Your task to perform on an android device: delete location history Image 0: 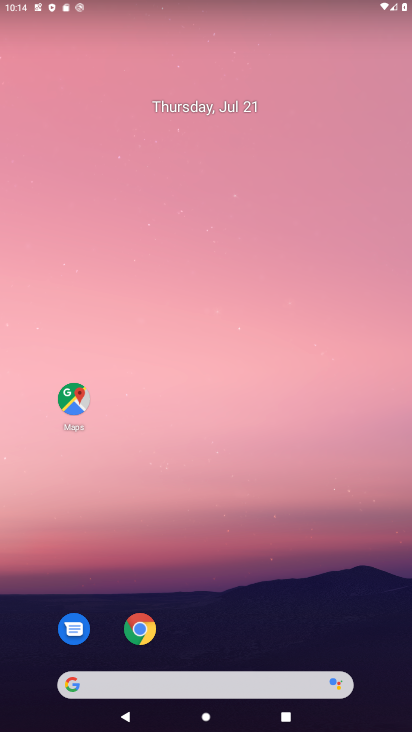
Step 0: click (70, 405)
Your task to perform on an android device: delete location history Image 1: 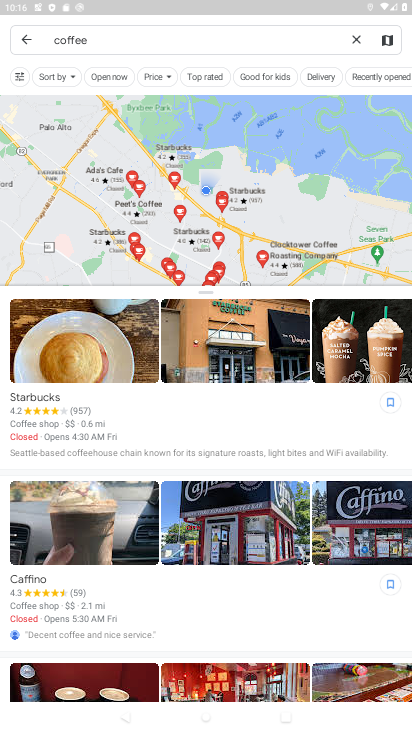
Step 1: click (30, 40)
Your task to perform on an android device: delete location history Image 2: 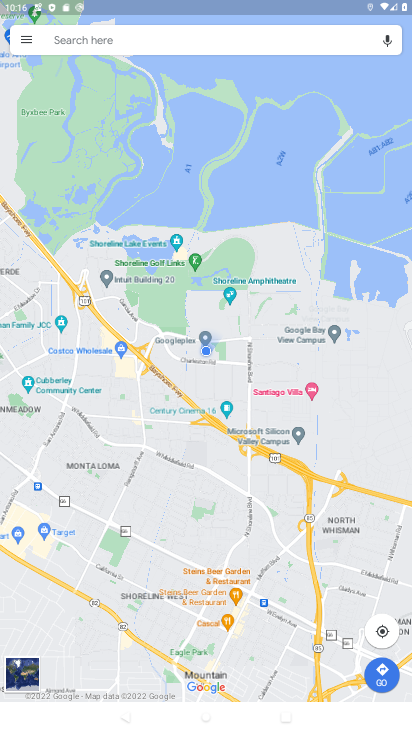
Step 2: click (26, 43)
Your task to perform on an android device: delete location history Image 3: 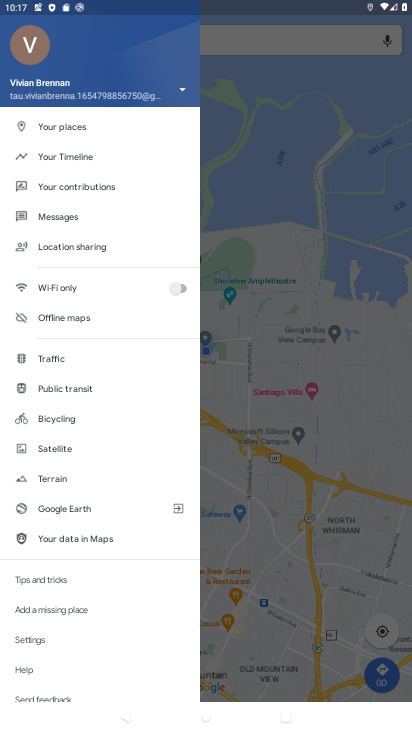
Step 3: click (76, 160)
Your task to perform on an android device: delete location history Image 4: 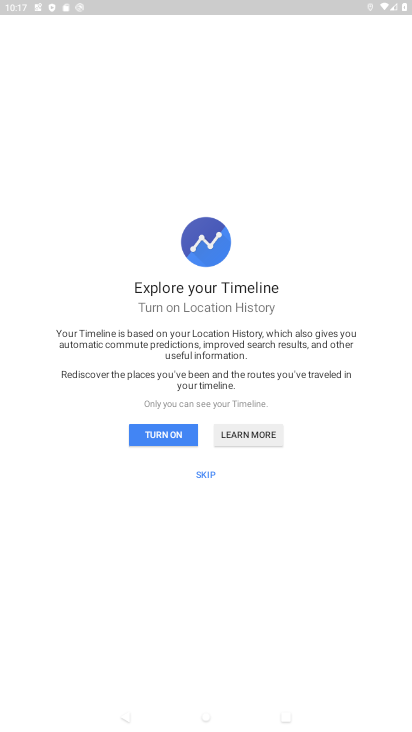
Step 4: click (180, 441)
Your task to perform on an android device: delete location history Image 5: 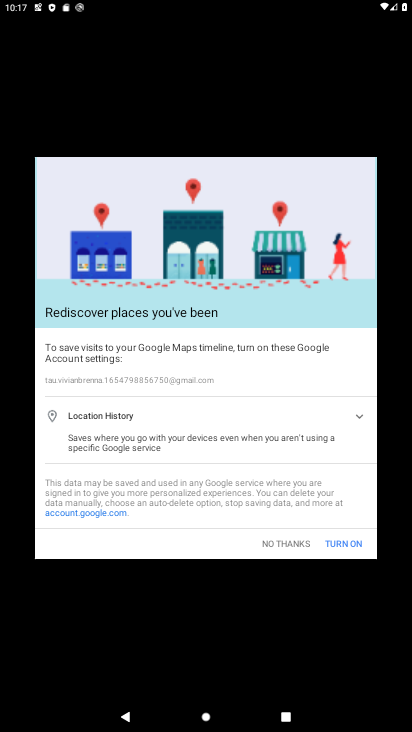
Step 5: click (350, 543)
Your task to perform on an android device: delete location history Image 6: 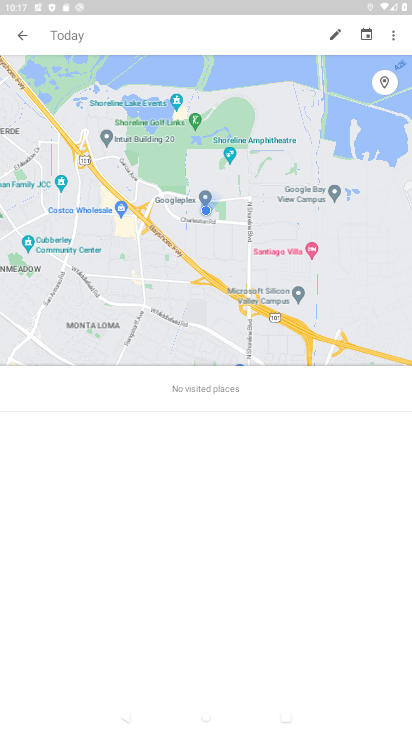
Step 6: click (398, 31)
Your task to perform on an android device: delete location history Image 7: 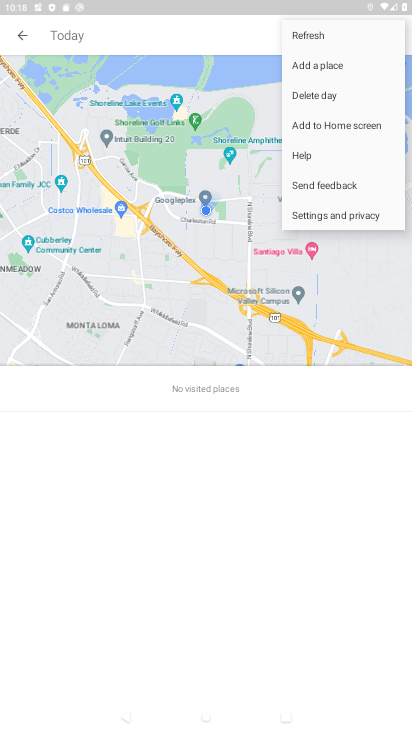
Step 7: click (334, 224)
Your task to perform on an android device: delete location history Image 8: 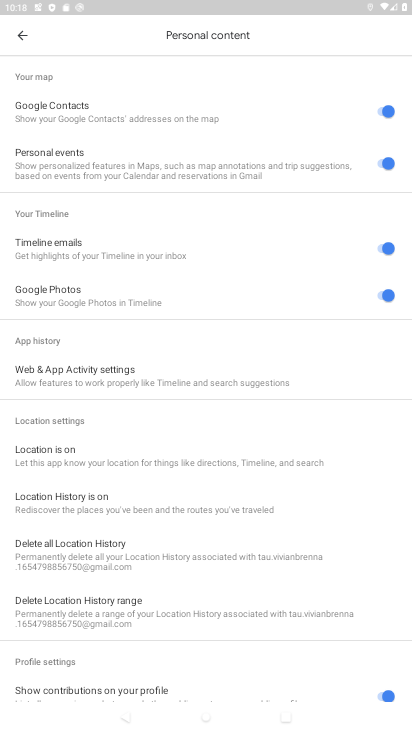
Step 8: click (141, 565)
Your task to perform on an android device: delete location history Image 9: 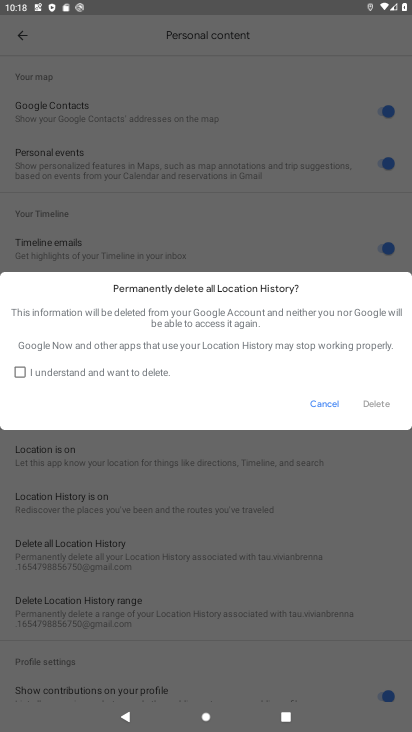
Step 9: click (20, 370)
Your task to perform on an android device: delete location history Image 10: 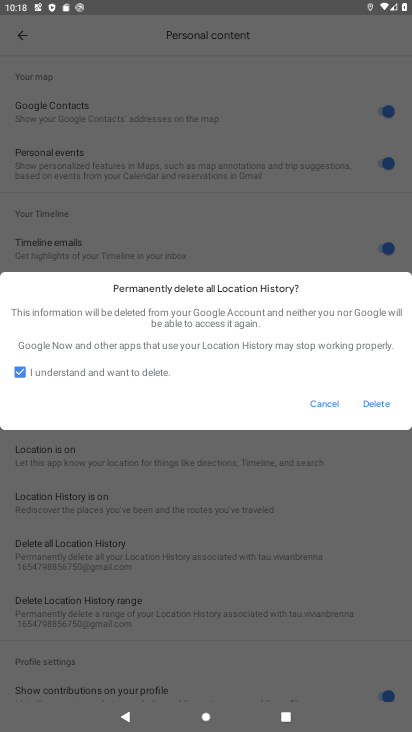
Step 10: click (362, 405)
Your task to perform on an android device: delete location history Image 11: 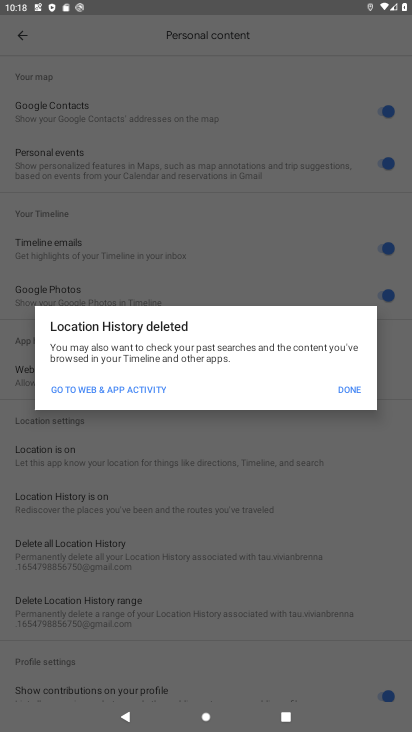
Step 11: click (358, 384)
Your task to perform on an android device: delete location history Image 12: 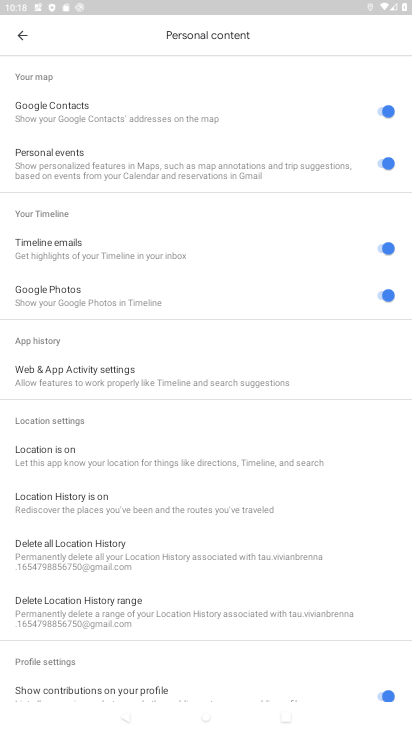
Step 12: task complete